Your task to perform on an android device: Check the weather Image 0: 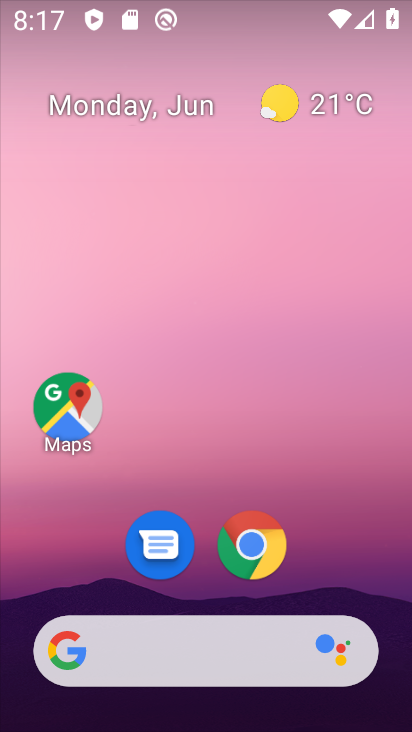
Step 0: drag from (333, 488) to (289, 166)
Your task to perform on an android device: Check the weather Image 1: 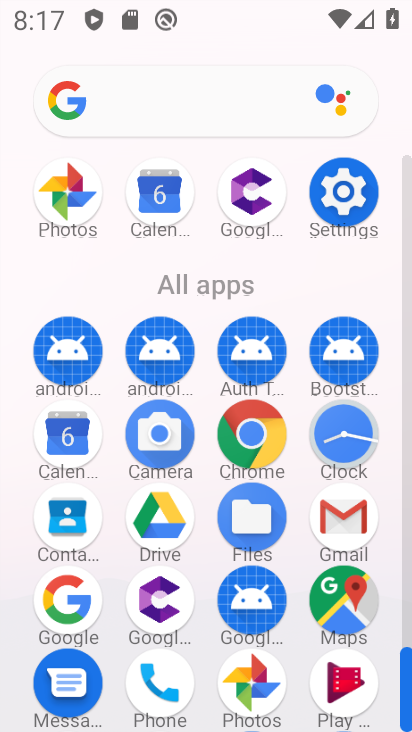
Step 1: click (41, 586)
Your task to perform on an android device: Check the weather Image 2: 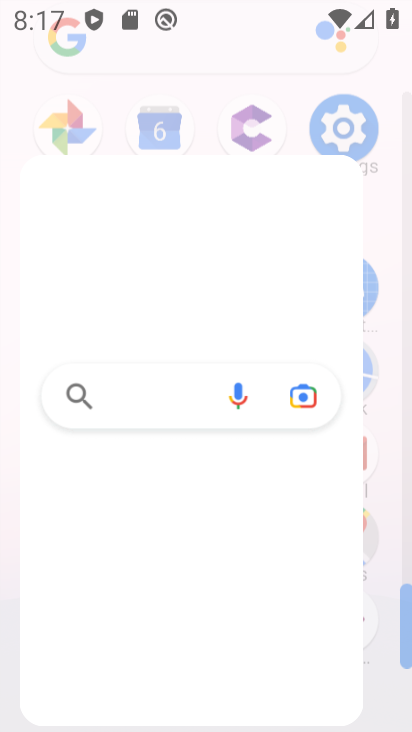
Step 2: click (45, 594)
Your task to perform on an android device: Check the weather Image 3: 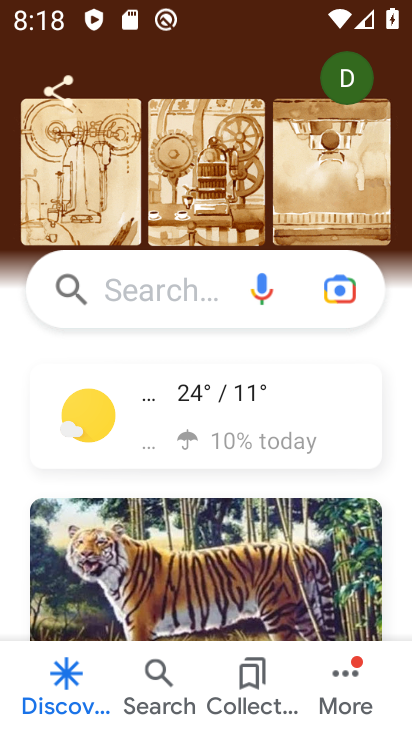
Step 3: click (147, 295)
Your task to perform on an android device: Check the weather Image 4: 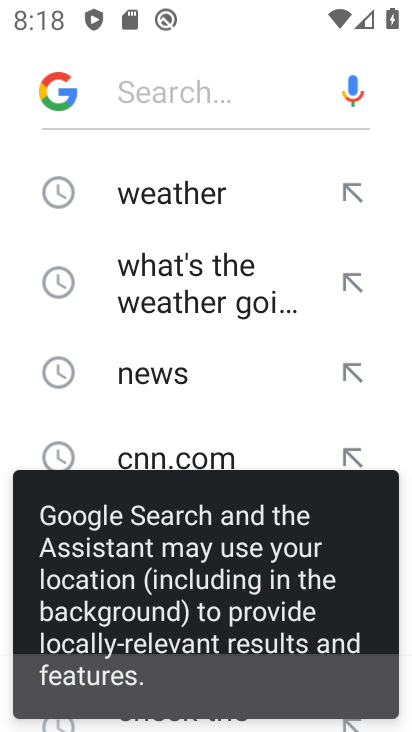
Step 4: click (159, 172)
Your task to perform on an android device: Check the weather Image 5: 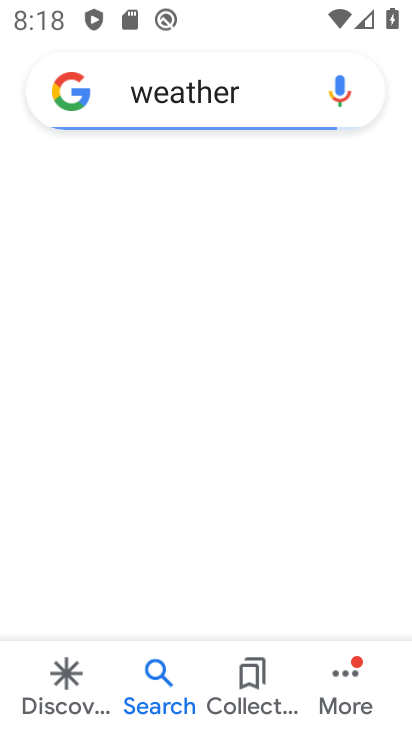
Step 5: task complete